Your task to perform on an android device: toggle pop-ups in chrome Image 0: 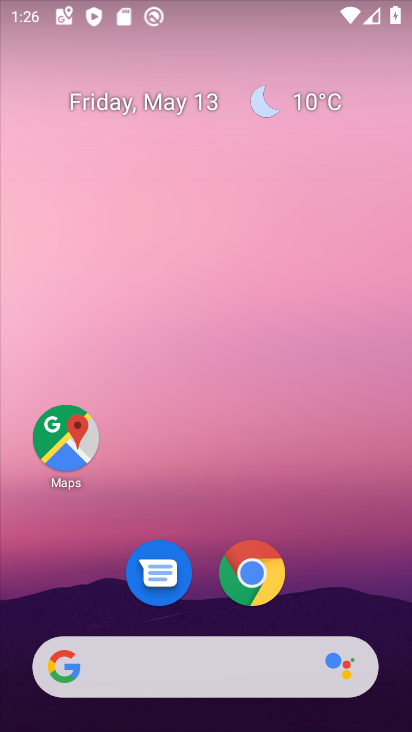
Step 0: drag from (316, 519) to (241, 7)
Your task to perform on an android device: toggle pop-ups in chrome Image 1: 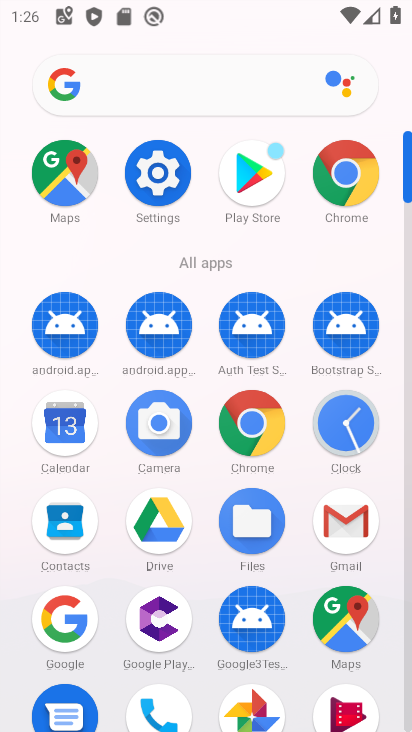
Step 1: drag from (4, 571) to (1, 209)
Your task to perform on an android device: toggle pop-ups in chrome Image 2: 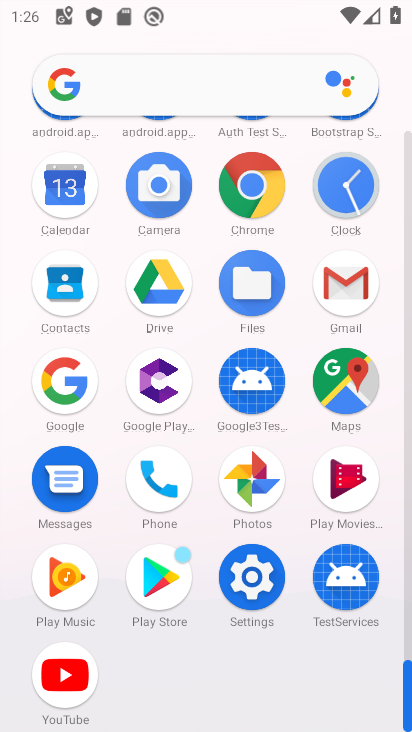
Step 2: click (250, 183)
Your task to perform on an android device: toggle pop-ups in chrome Image 3: 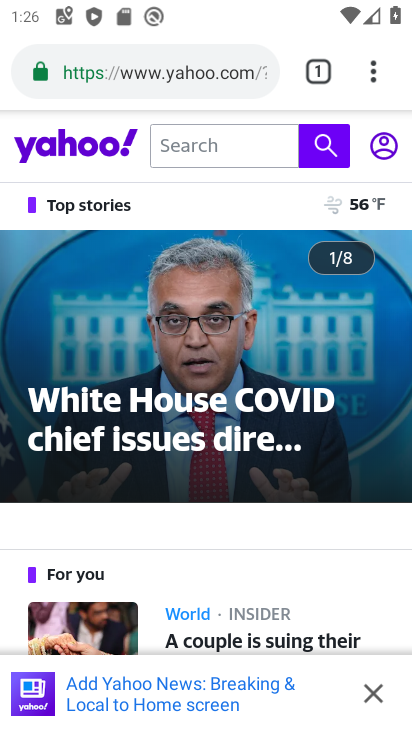
Step 3: drag from (373, 75) to (142, 537)
Your task to perform on an android device: toggle pop-ups in chrome Image 4: 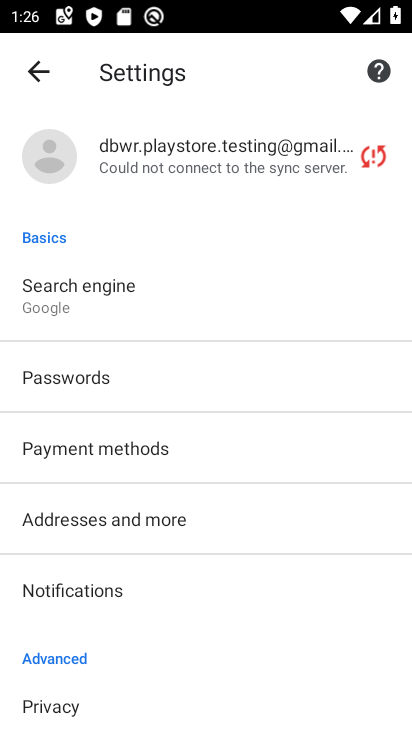
Step 4: drag from (177, 542) to (187, 275)
Your task to perform on an android device: toggle pop-ups in chrome Image 5: 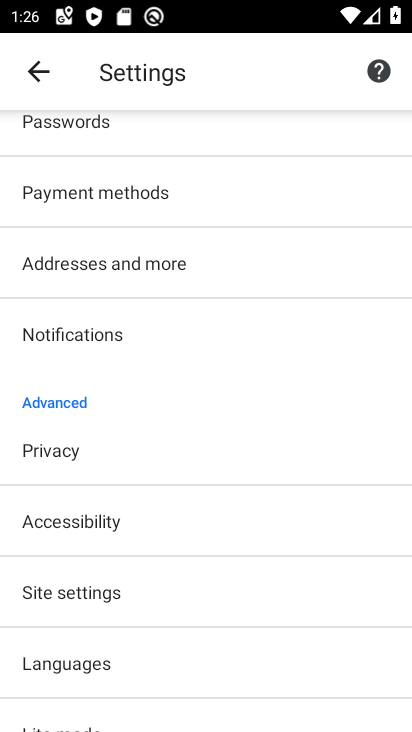
Step 5: click (119, 589)
Your task to perform on an android device: toggle pop-ups in chrome Image 6: 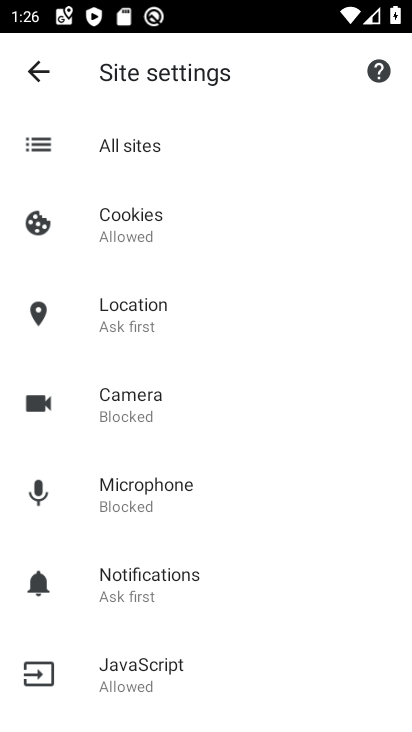
Step 6: drag from (186, 531) to (235, 183)
Your task to perform on an android device: toggle pop-ups in chrome Image 7: 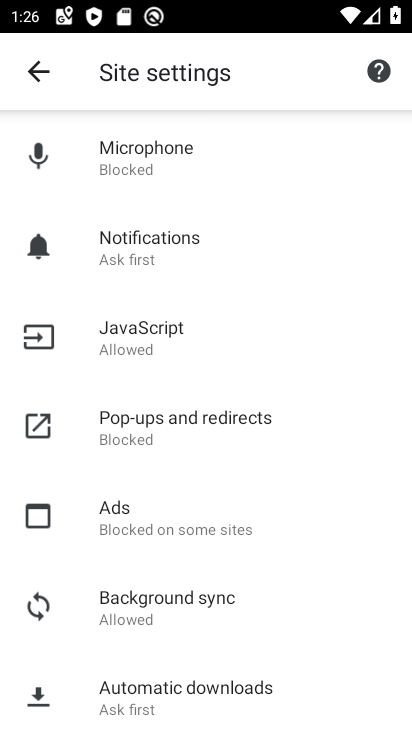
Step 7: drag from (300, 537) to (318, 219)
Your task to perform on an android device: toggle pop-ups in chrome Image 8: 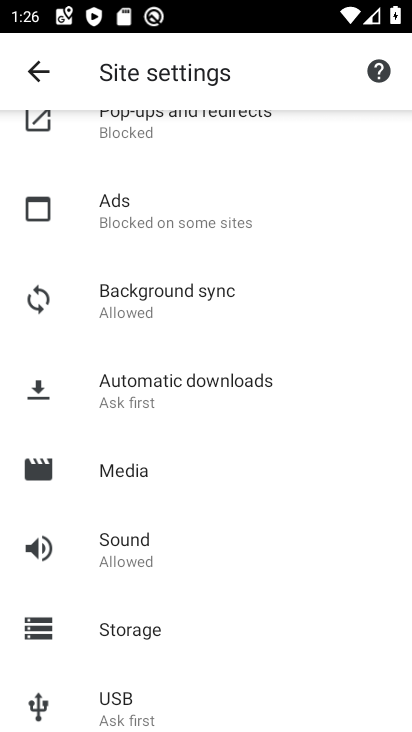
Step 8: drag from (252, 522) to (262, 189)
Your task to perform on an android device: toggle pop-ups in chrome Image 9: 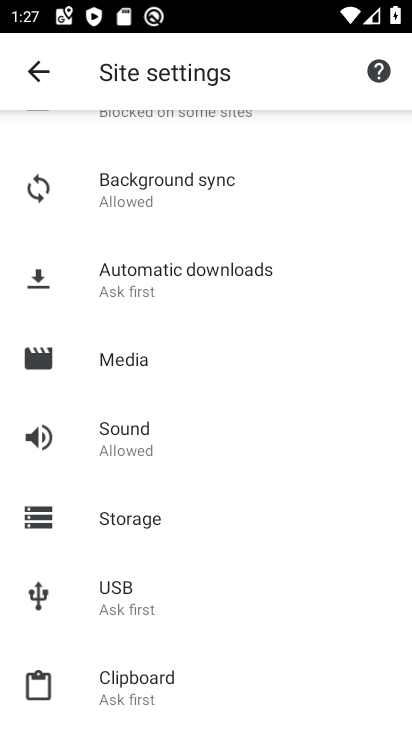
Step 9: drag from (225, 582) to (249, 185)
Your task to perform on an android device: toggle pop-ups in chrome Image 10: 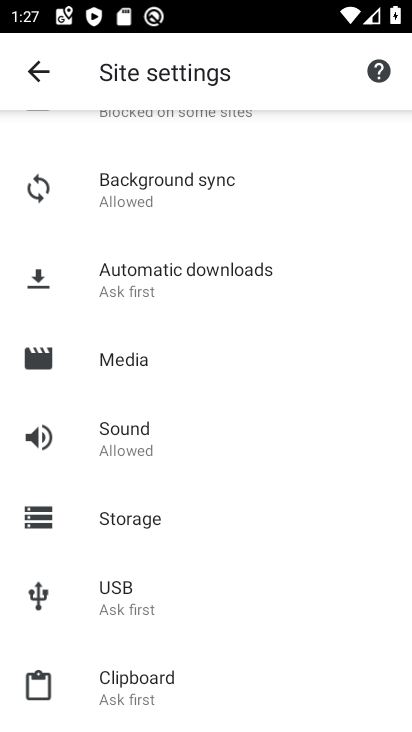
Step 10: drag from (214, 570) to (253, 247)
Your task to perform on an android device: toggle pop-ups in chrome Image 11: 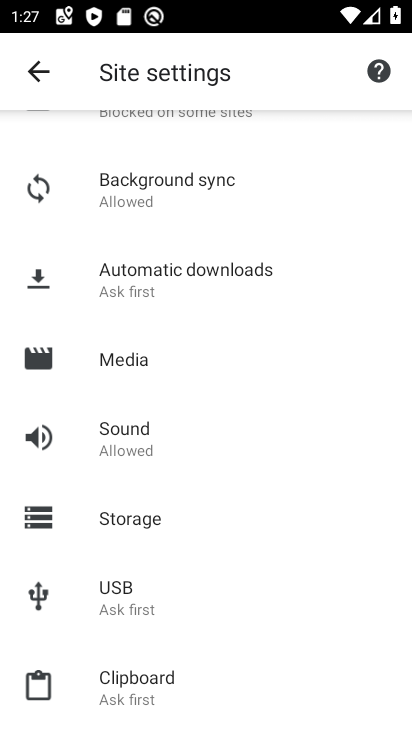
Step 11: drag from (243, 332) to (235, 665)
Your task to perform on an android device: toggle pop-ups in chrome Image 12: 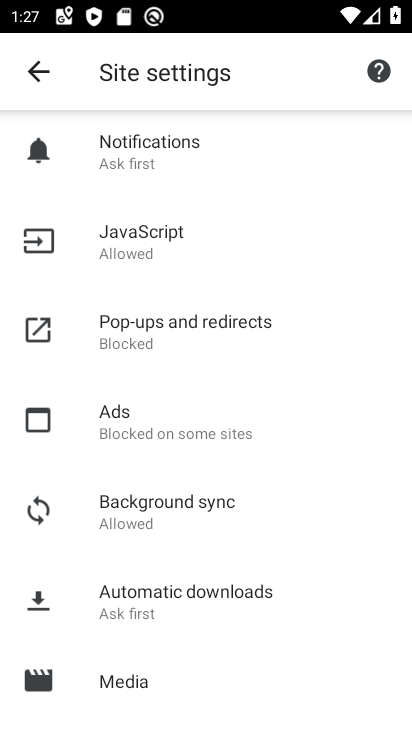
Step 12: click (220, 324)
Your task to perform on an android device: toggle pop-ups in chrome Image 13: 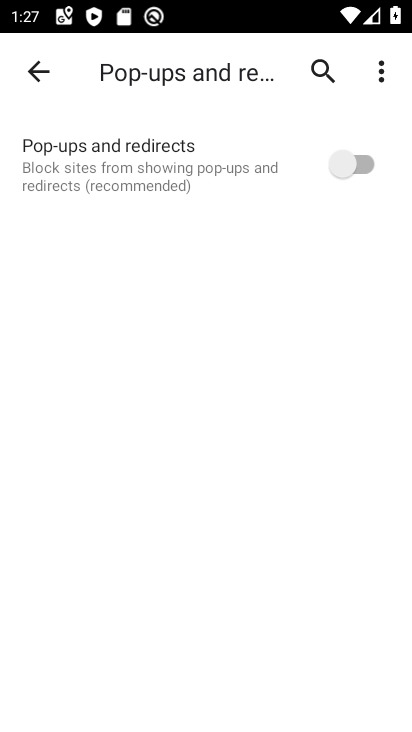
Step 13: click (339, 162)
Your task to perform on an android device: toggle pop-ups in chrome Image 14: 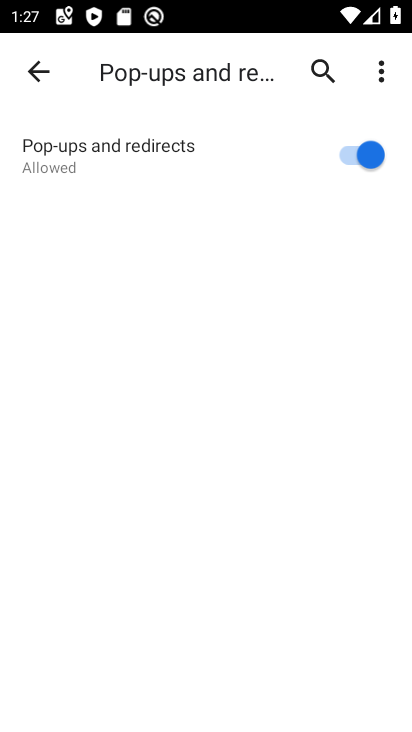
Step 14: task complete